Your task to perform on an android device: change the clock display to show seconds Image 0: 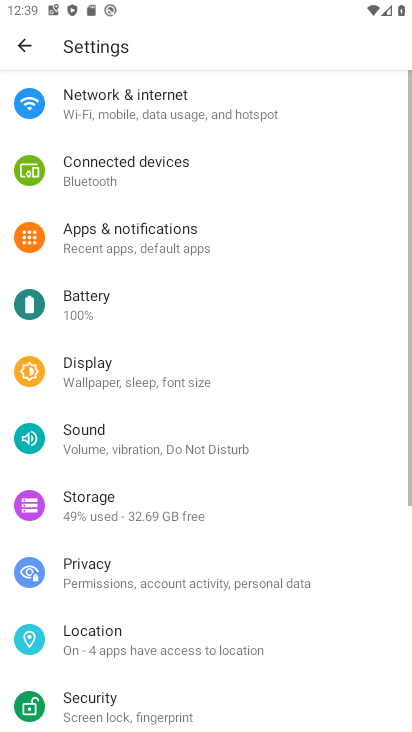
Step 0: press home button
Your task to perform on an android device: change the clock display to show seconds Image 1: 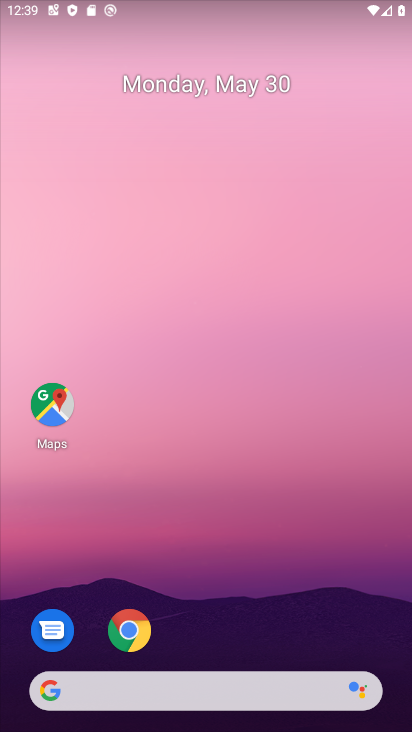
Step 1: drag from (225, 653) to (299, 133)
Your task to perform on an android device: change the clock display to show seconds Image 2: 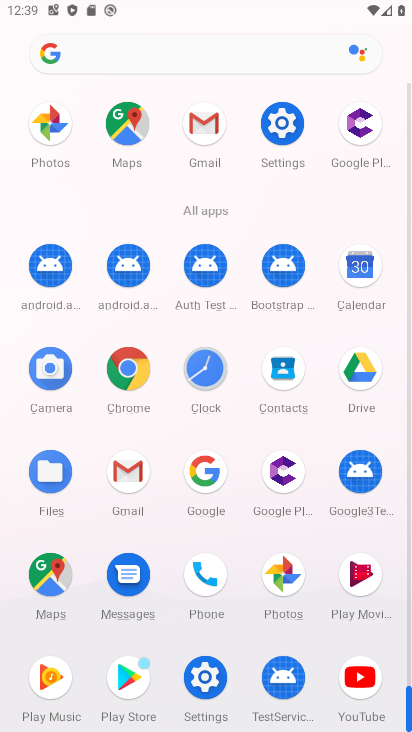
Step 2: click (199, 364)
Your task to perform on an android device: change the clock display to show seconds Image 3: 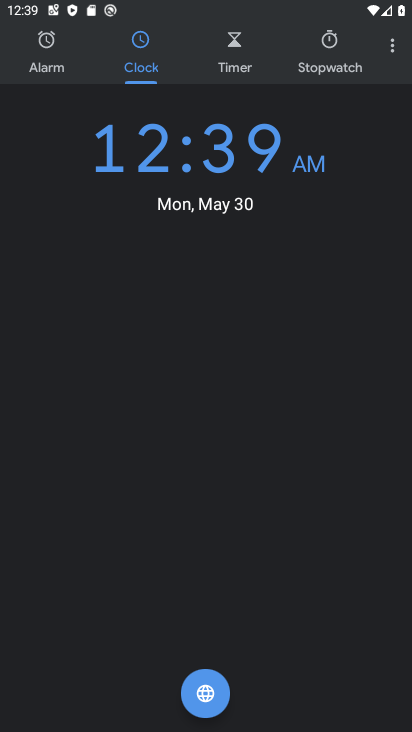
Step 3: click (384, 38)
Your task to perform on an android device: change the clock display to show seconds Image 4: 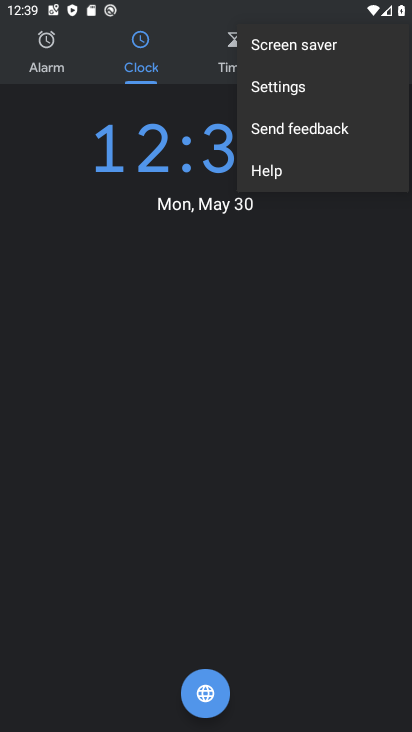
Step 4: click (320, 89)
Your task to perform on an android device: change the clock display to show seconds Image 5: 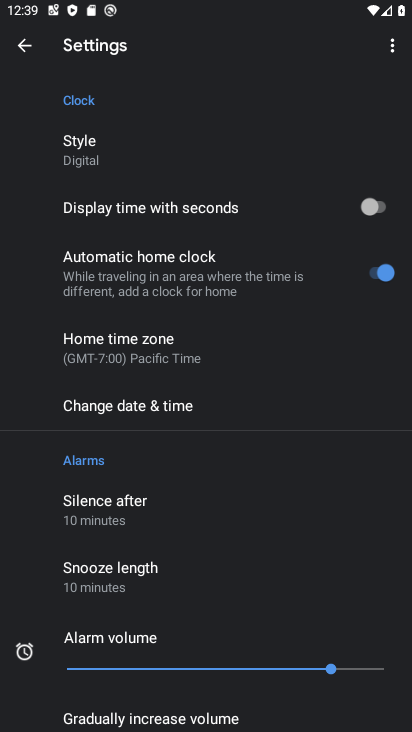
Step 5: click (378, 202)
Your task to perform on an android device: change the clock display to show seconds Image 6: 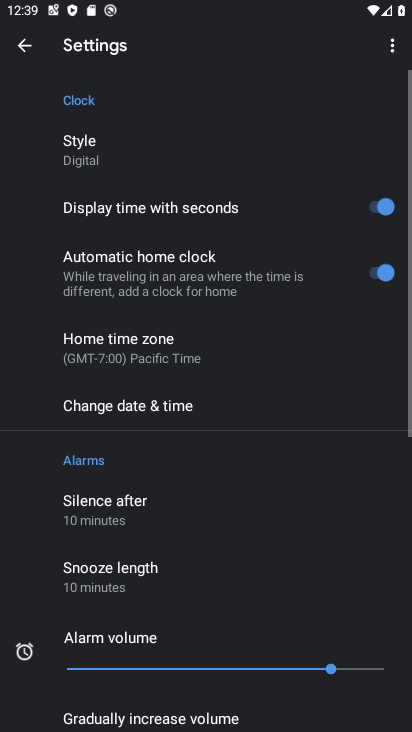
Step 6: task complete